Your task to perform on an android device: check out phone information Image 0: 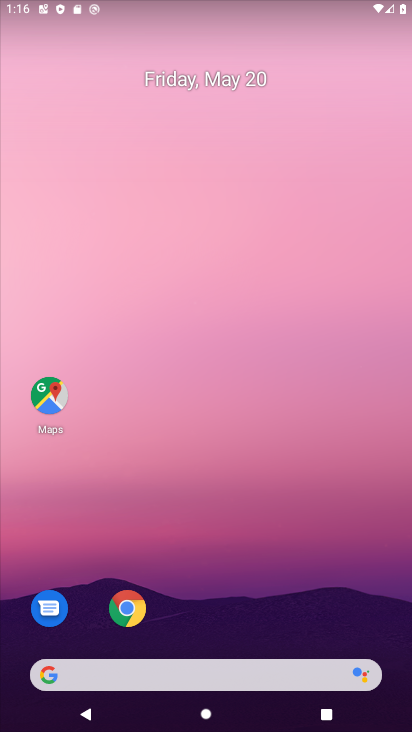
Step 0: drag from (227, 577) to (347, 119)
Your task to perform on an android device: check out phone information Image 1: 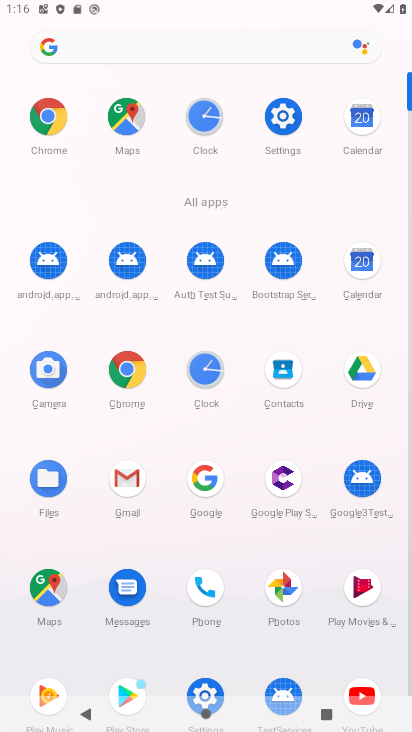
Step 1: click (290, 122)
Your task to perform on an android device: check out phone information Image 2: 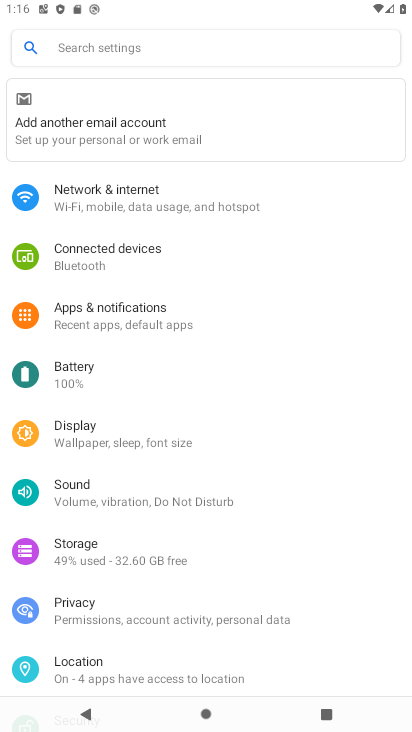
Step 2: drag from (156, 665) to (310, 66)
Your task to perform on an android device: check out phone information Image 3: 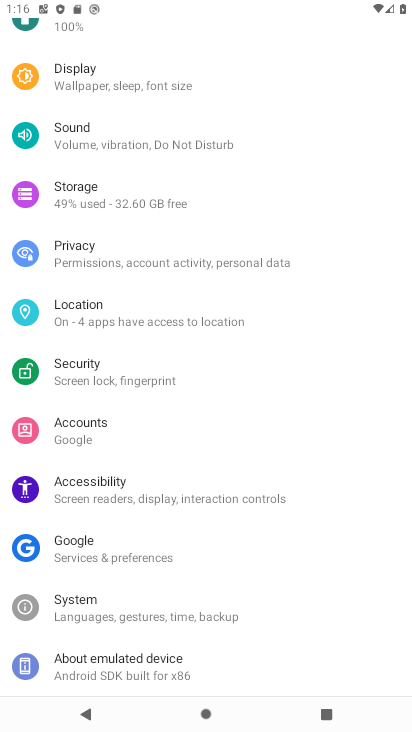
Step 3: click (134, 668)
Your task to perform on an android device: check out phone information Image 4: 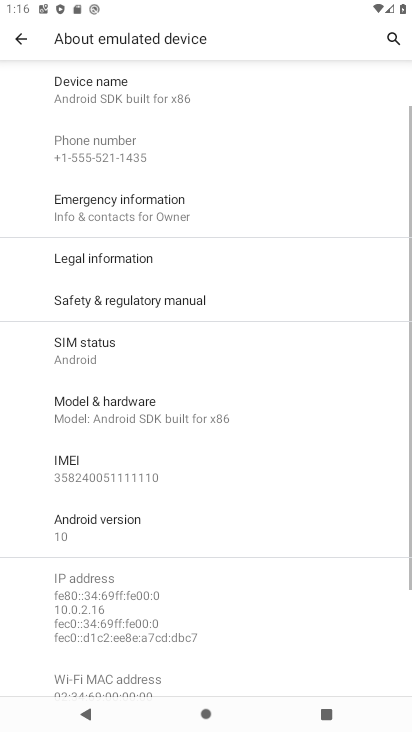
Step 4: task complete